Your task to perform on an android device: turn off javascript in the chrome app Image 0: 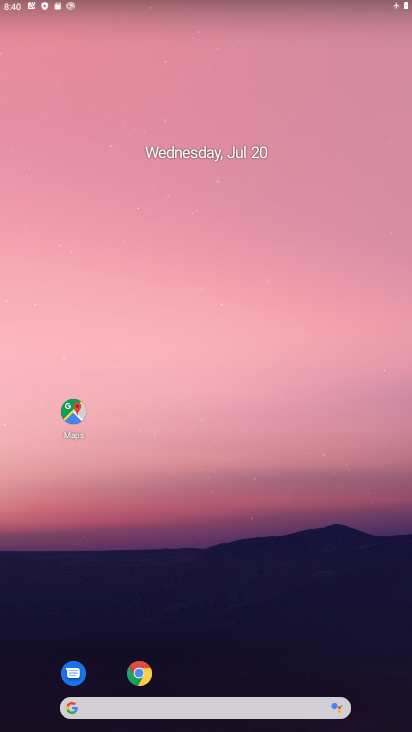
Step 0: click (142, 673)
Your task to perform on an android device: turn off javascript in the chrome app Image 1: 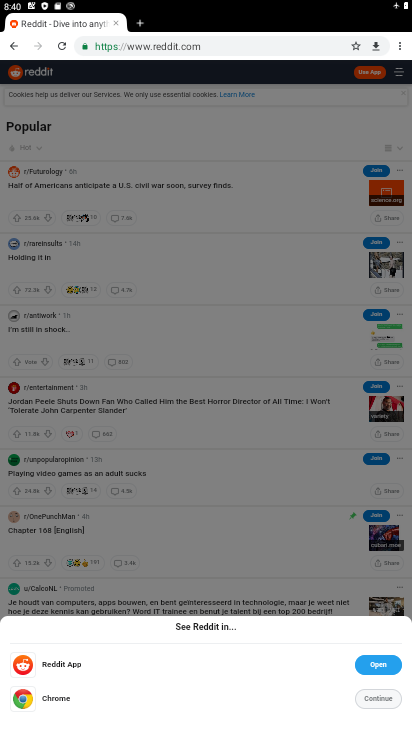
Step 1: click (400, 53)
Your task to perform on an android device: turn off javascript in the chrome app Image 2: 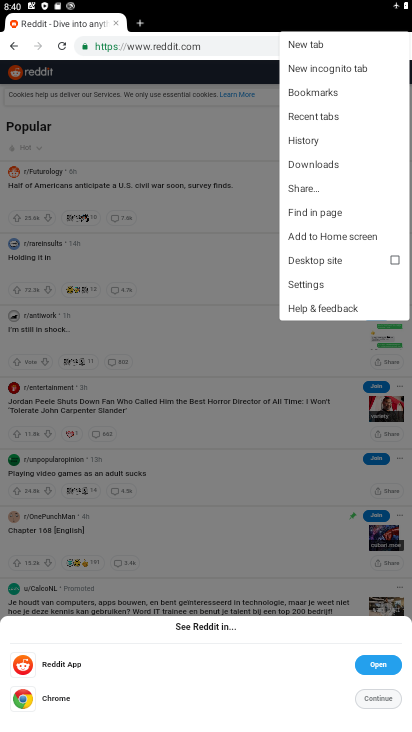
Step 2: click (310, 283)
Your task to perform on an android device: turn off javascript in the chrome app Image 3: 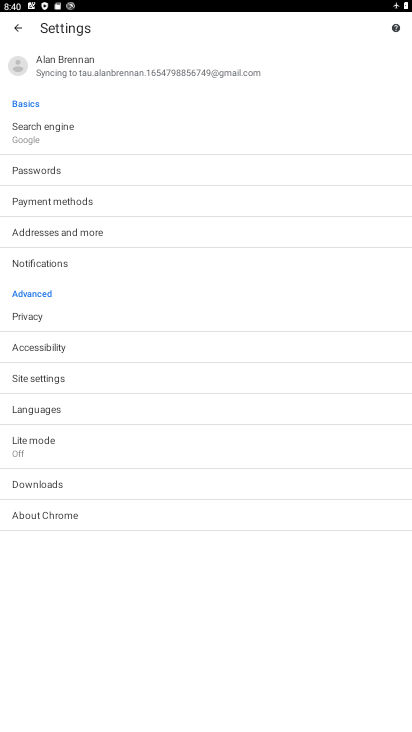
Step 3: click (39, 377)
Your task to perform on an android device: turn off javascript in the chrome app Image 4: 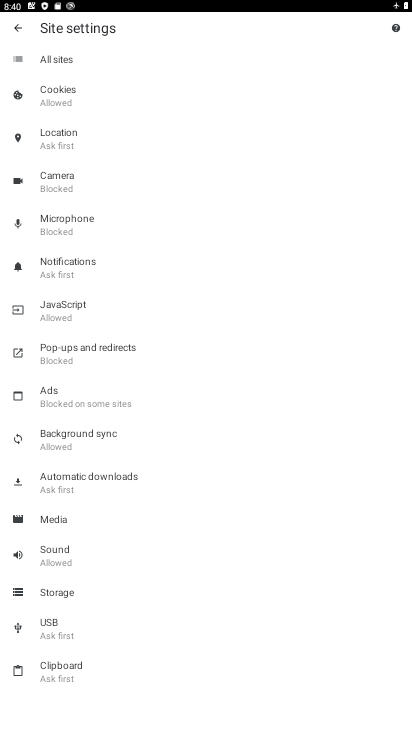
Step 4: click (62, 312)
Your task to perform on an android device: turn off javascript in the chrome app Image 5: 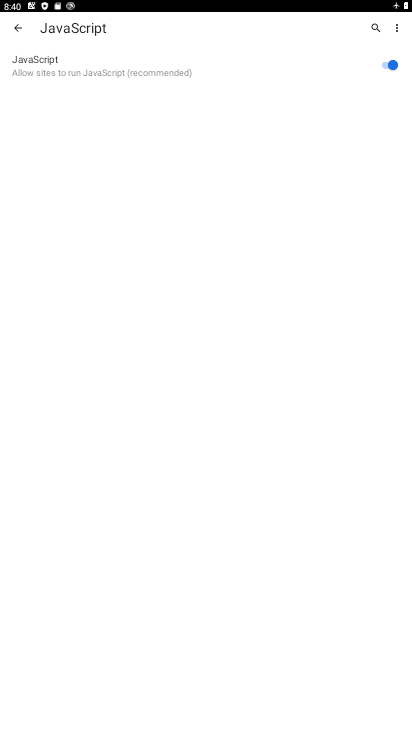
Step 5: click (391, 65)
Your task to perform on an android device: turn off javascript in the chrome app Image 6: 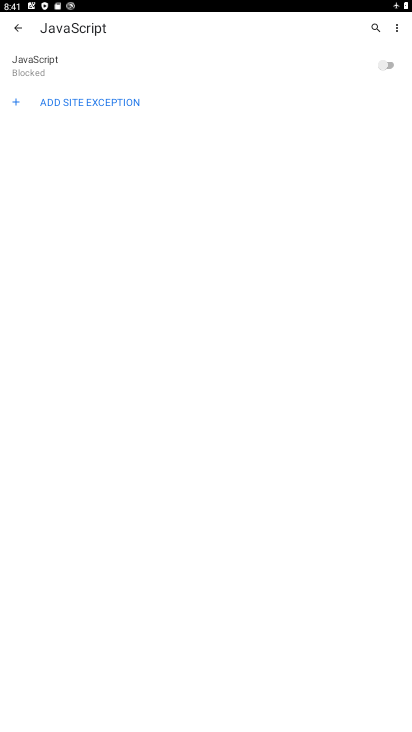
Step 6: task complete